Your task to perform on an android device: set the timer Image 0: 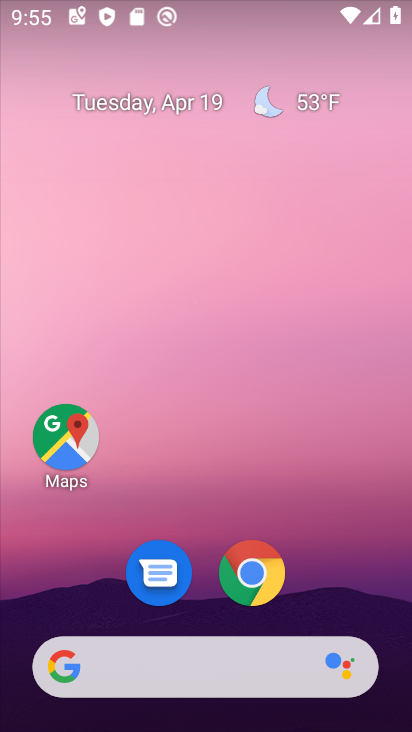
Step 0: drag from (207, 607) to (252, 52)
Your task to perform on an android device: set the timer Image 1: 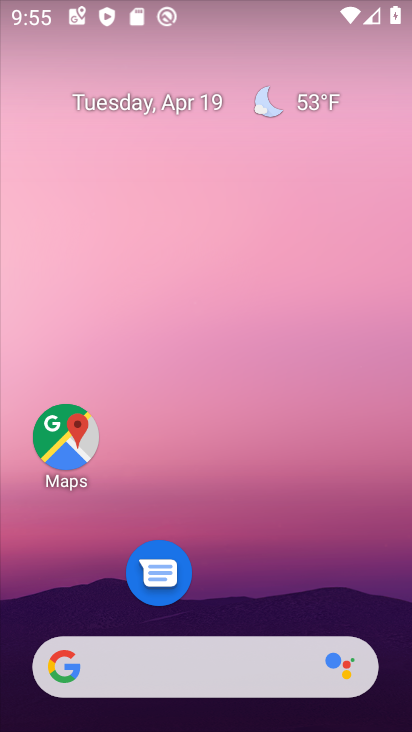
Step 1: drag from (250, 407) to (261, 107)
Your task to perform on an android device: set the timer Image 2: 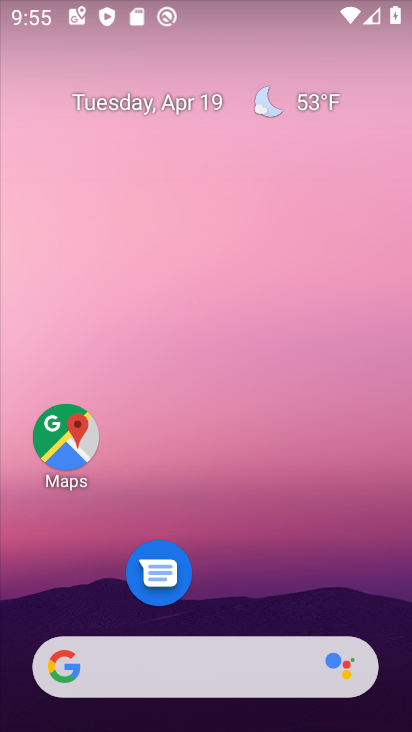
Step 2: drag from (233, 394) to (220, 131)
Your task to perform on an android device: set the timer Image 3: 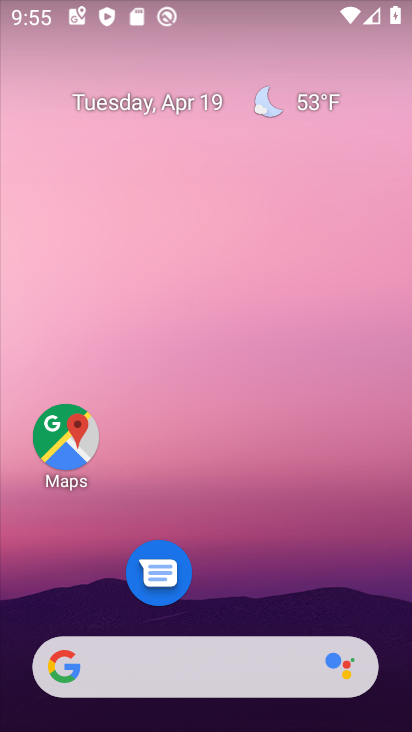
Step 3: drag from (232, 578) to (232, 75)
Your task to perform on an android device: set the timer Image 4: 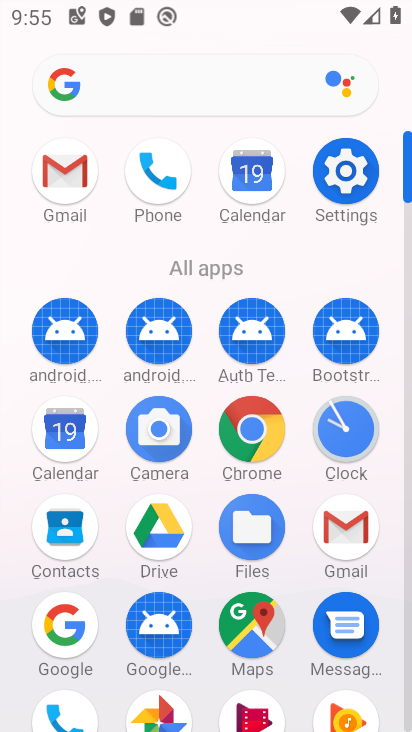
Step 4: click (344, 416)
Your task to perform on an android device: set the timer Image 5: 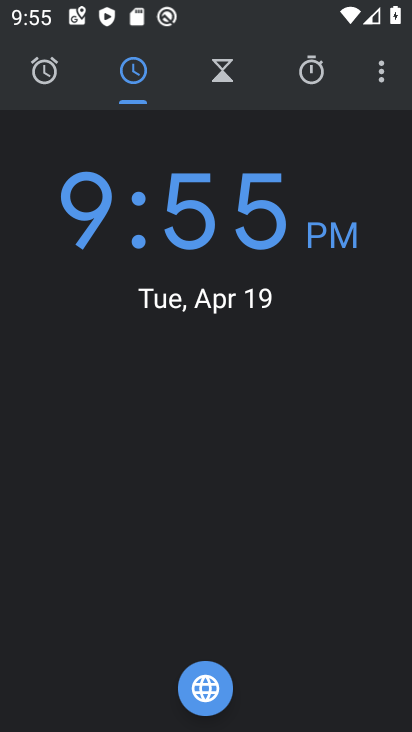
Step 5: click (225, 81)
Your task to perform on an android device: set the timer Image 6: 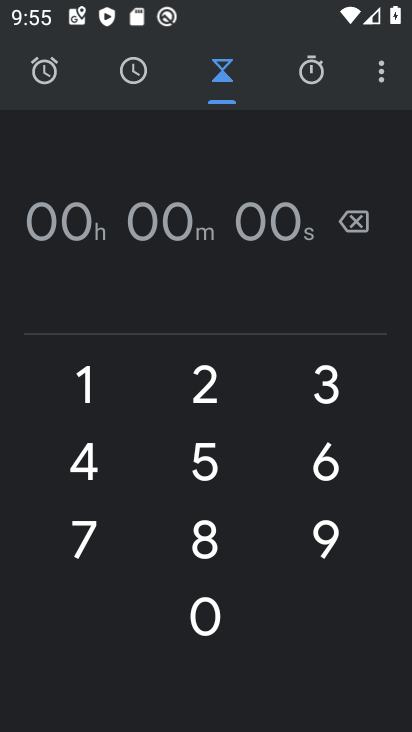
Step 6: click (262, 229)
Your task to perform on an android device: set the timer Image 7: 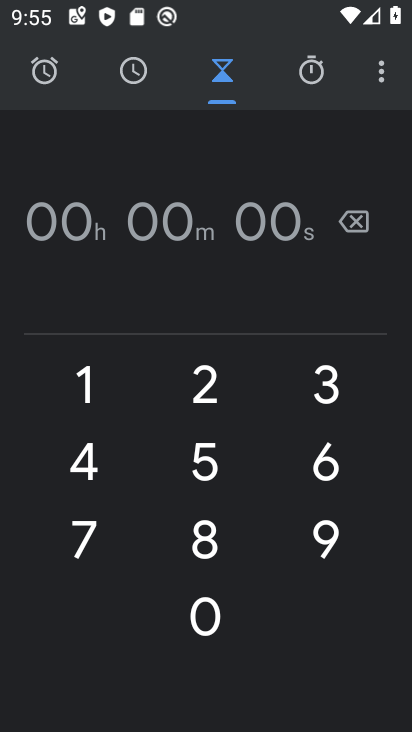
Step 7: type "45"
Your task to perform on an android device: set the timer Image 8: 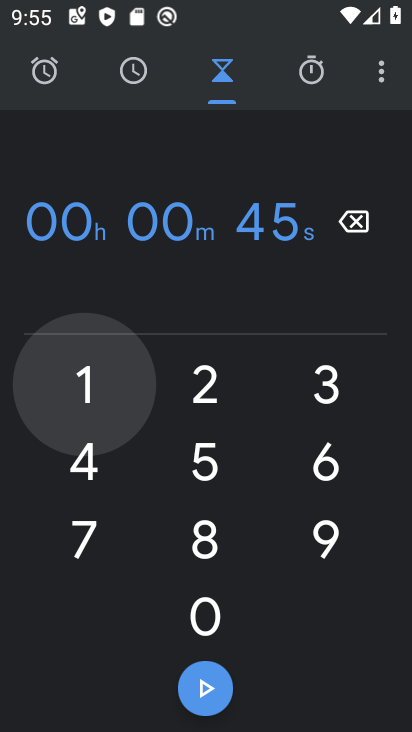
Step 8: click (200, 696)
Your task to perform on an android device: set the timer Image 9: 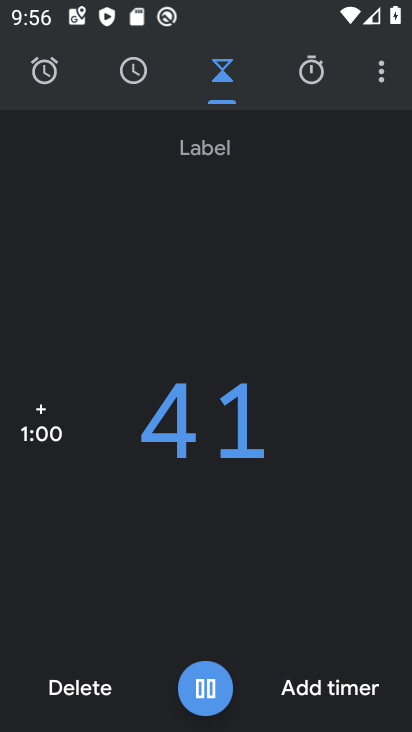
Step 9: task complete